Your task to perform on an android device: turn on sleep mode Image 0: 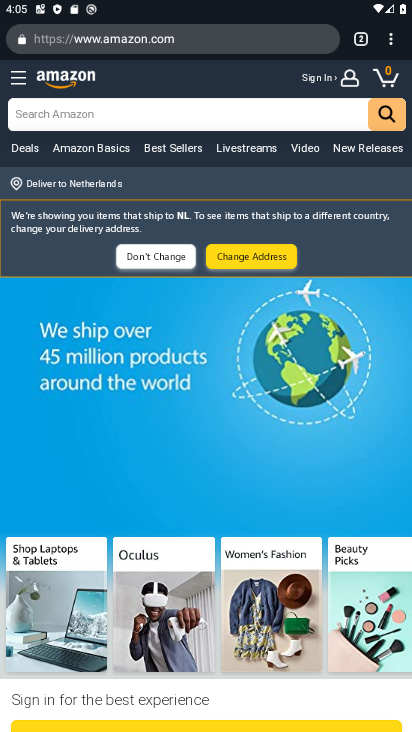
Step 0: press home button
Your task to perform on an android device: turn on sleep mode Image 1: 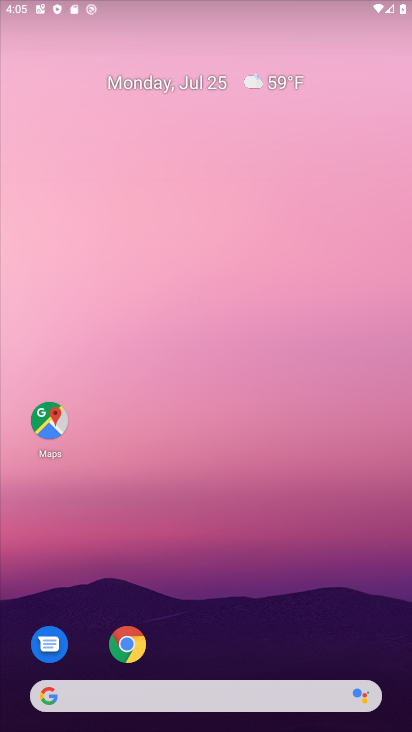
Step 1: drag from (167, 700) to (174, 153)
Your task to perform on an android device: turn on sleep mode Image 2: 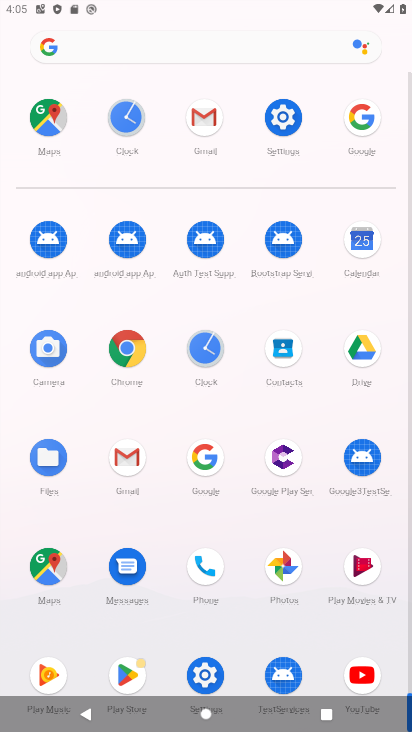
Step 2: click (280, 115)
Your task to perform on an android device: turn on sleep mode Image 3: 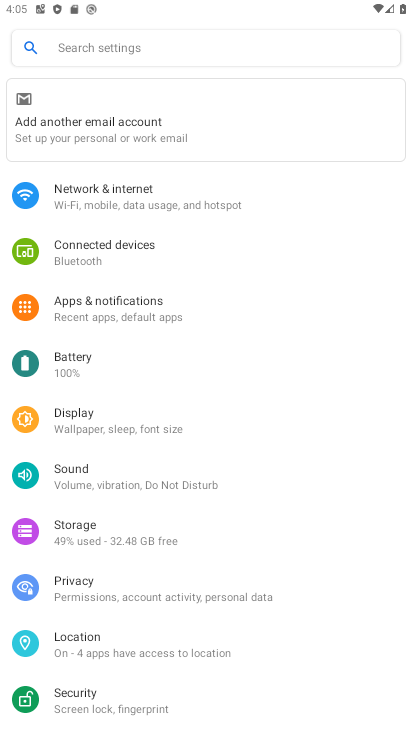
Step 3: click (102, 428)
Your task to perform on an android device: turn on sleep mode Image 4: 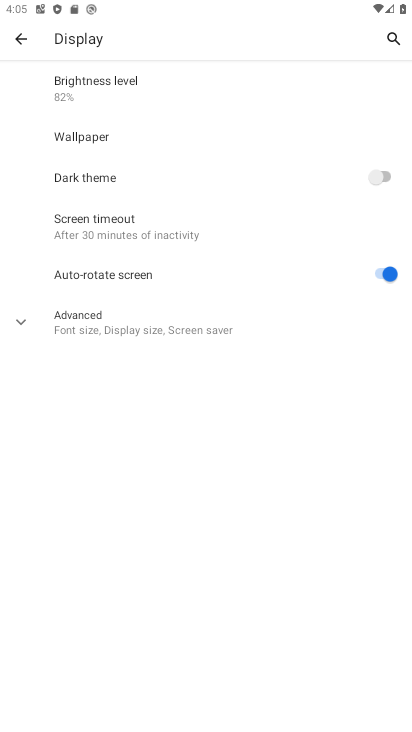
Step 4: click (81, 229)
Your task to perform on an android device: turn on sleep mode Image 5: 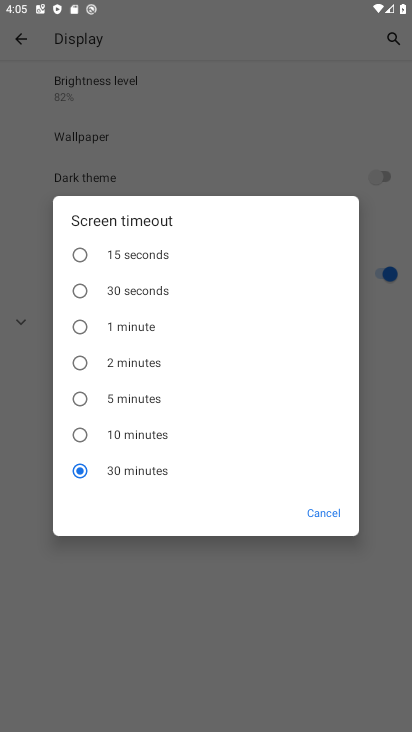
Step 5: click (121, 260)
Your task to perform on an android device: turn on sleep mode Image 6: 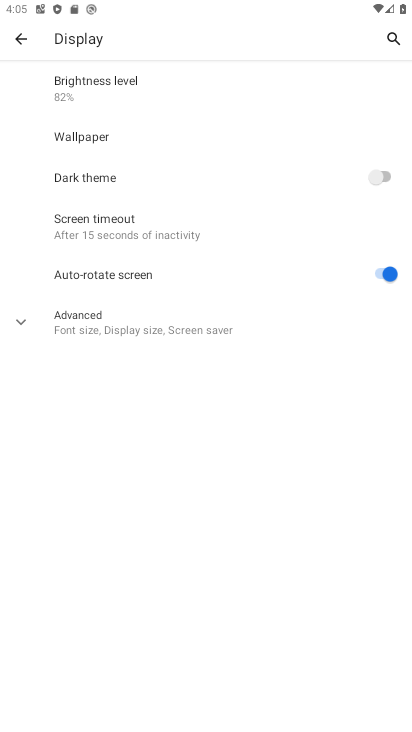
Step 6: task complete